Your task to perform on an android device: empty trash in google photos Image 0: 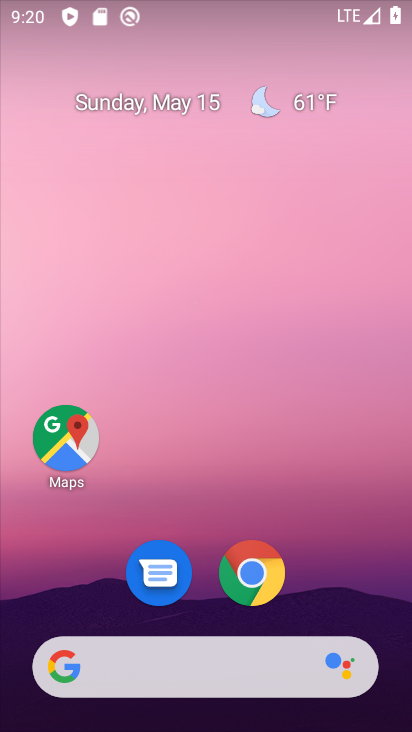
Step 0: press home button
Your task to perform on an android device: empty trash in google photos Image 1: 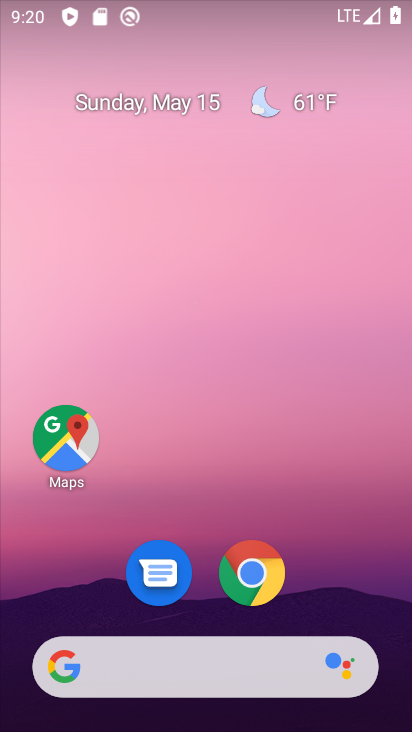
Step 1: drag from (50, 575) to (248, 66)
Your task to perform on an android device: empty trash in google photos Image 2: 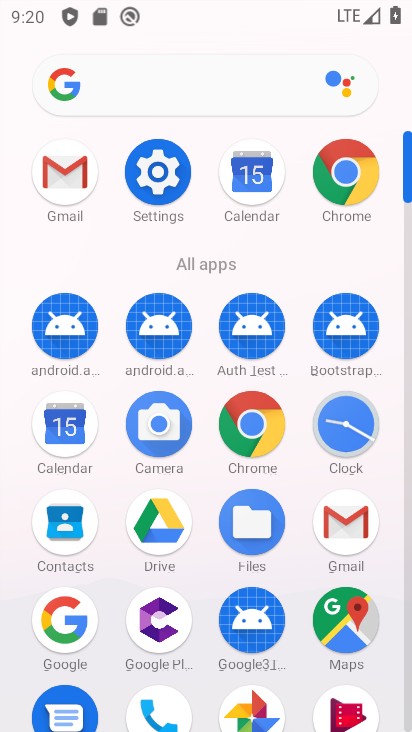
Step 2: click (260, 701)
Your task to perform on an android device: empty trash in google photos Image 3: 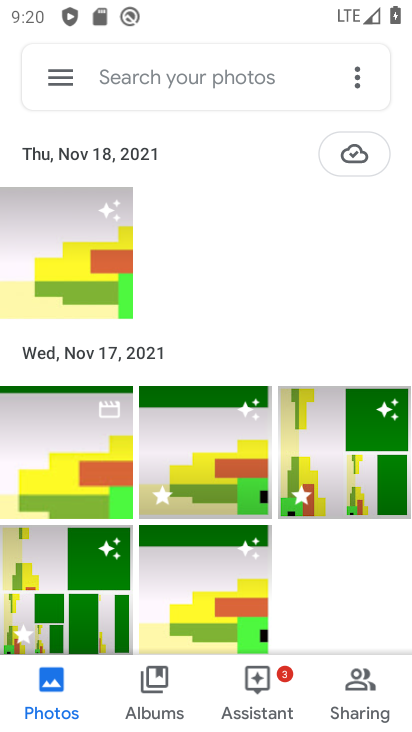
Step 3: click (52, 64)
Your task to perform on an android device: empty trash in google photos Image 4: 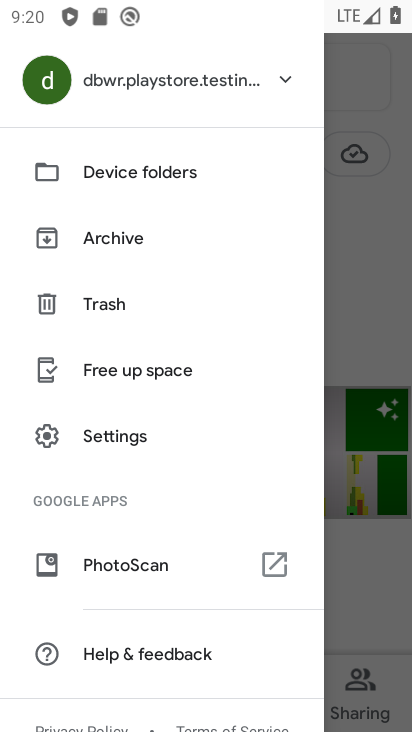
Step 4: click (127, 306)
Your task to perform on an android device: empty trash in google photos Image 5: 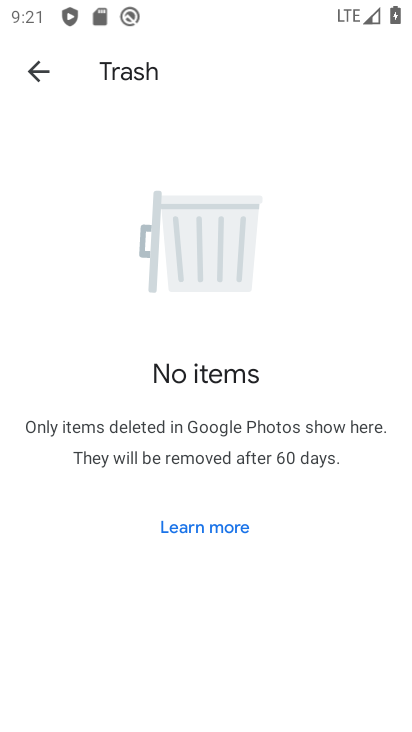
Step 5: task complete